Your task to perform on an android device: delete location history Image 0: 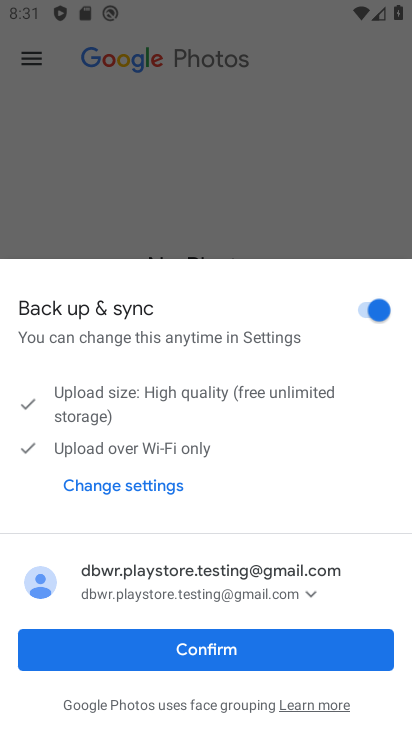
Step 0: press home button
Your task to perform on an android device: delete location history Image 1: 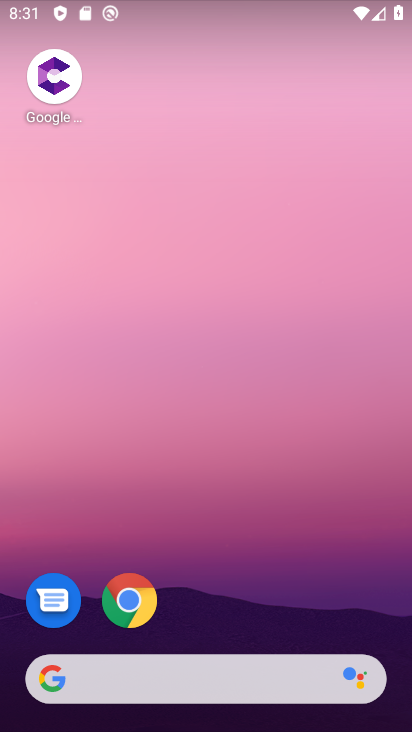
Step 1: drag from (223, 661) to (232, 1)
Your task to perform on an android device: delete location history Image 2: 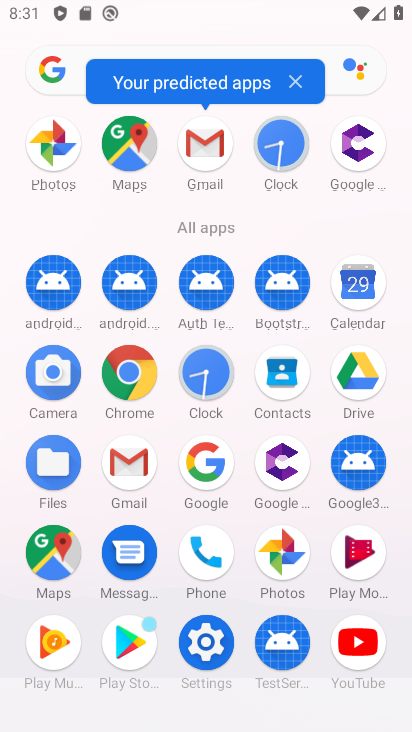
Step 2: click (54, 556)
Your task to perform on an android device: delete location history Image 3: 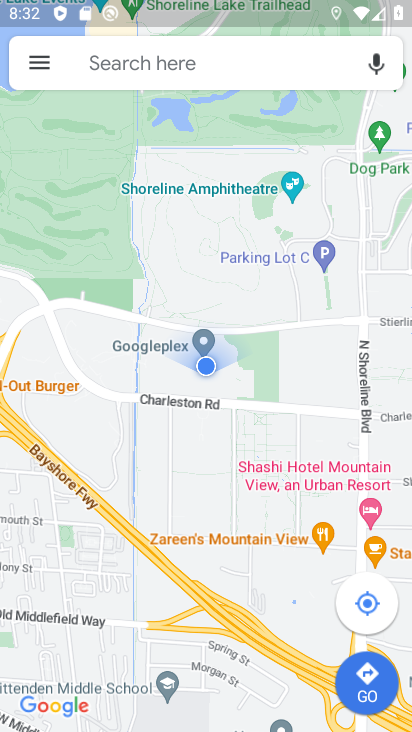
Step 3: click (33, 64)
Your task to perform on an android device: delete location history Image 4: 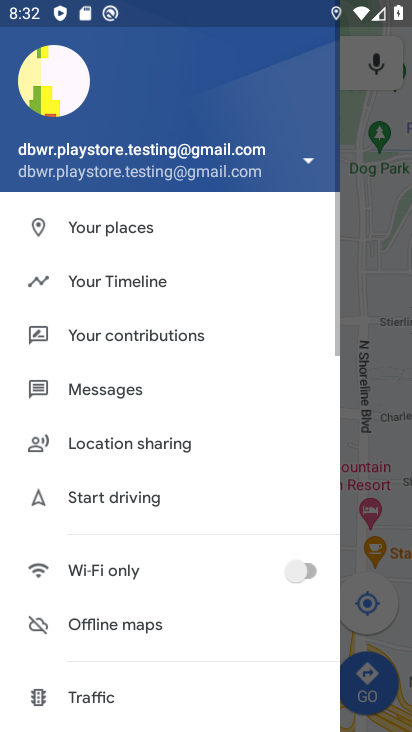
Step 4: click (139, 281)
Your task to perform on an android device: delete location history Image 5: 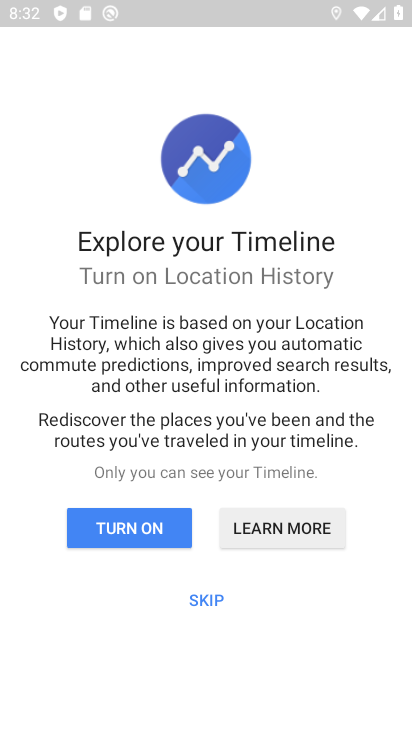
Step 5: click (200, 598)
Your task to perform on an android device: delete location history Image 6: 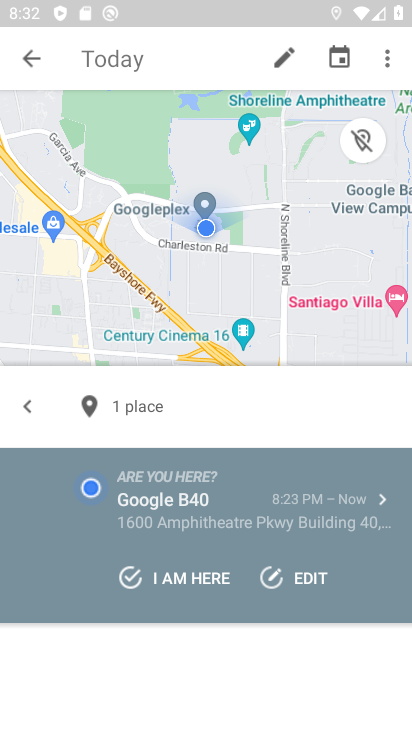
Step 6: click (387, 60)
Your task to perform on an android device: delete location history Image 7: 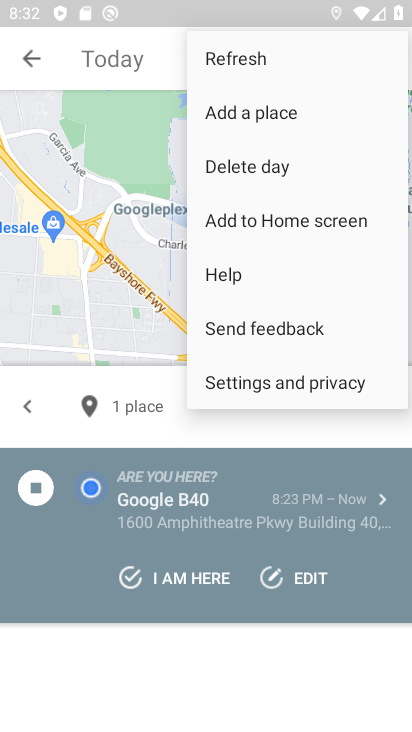
Step 7: click (268, 384)
Your task to perform on an android device: delete location history Image 8: 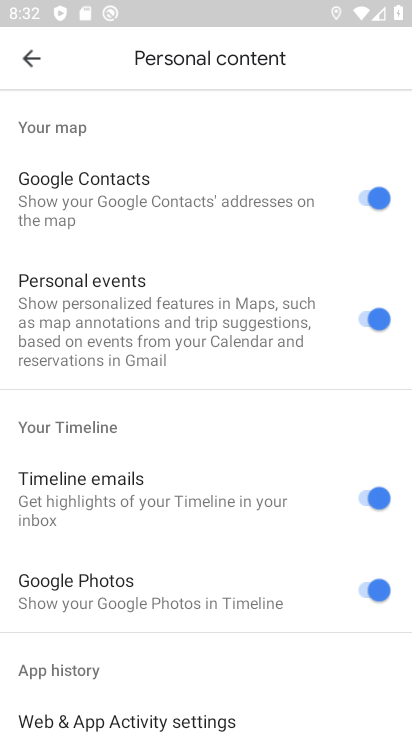
Step 8: drag from (177, 690) to (194, 143)
Your task to perform on an android device: delete location history Image 9: 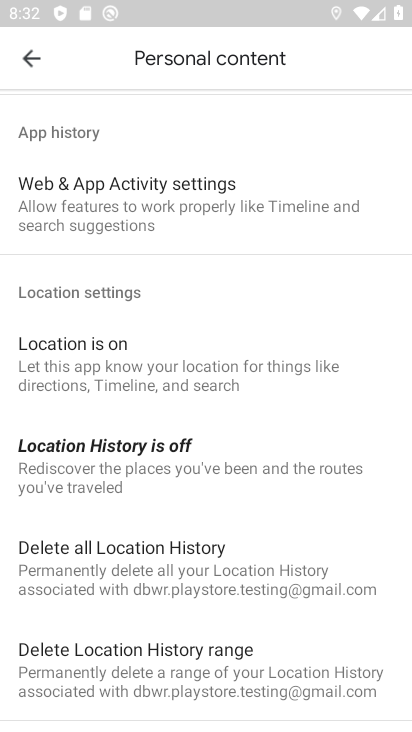
Step 9: click (114, 551)
Your task to perform on an android device: delete location history Image 10: 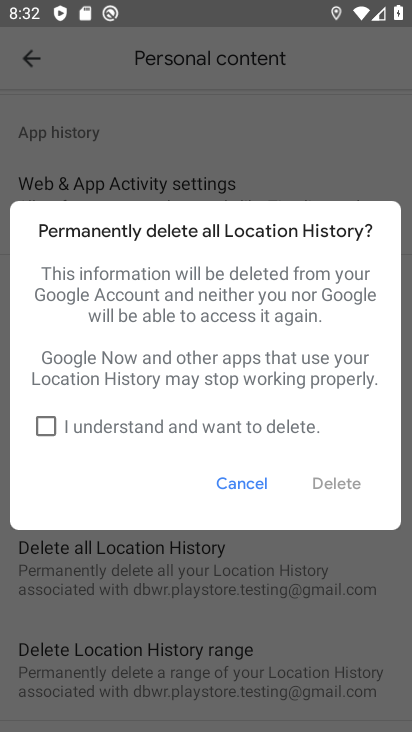
Step 10: click (55, 428)
Your task to perform on an android device: delete location history Image 11: 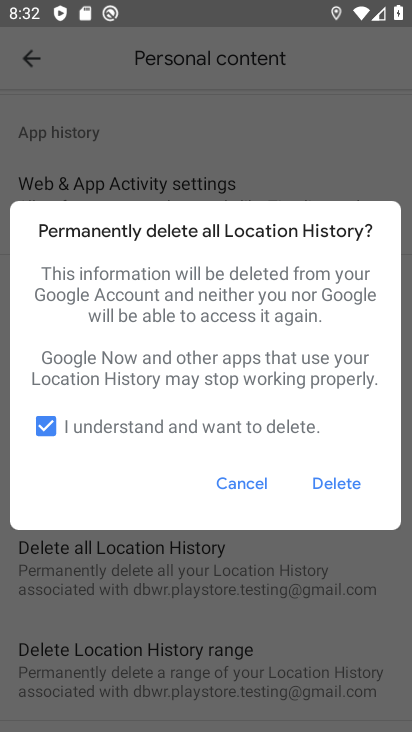
Step 11: click (325, 483)
Your task to perform on an android device: delete location history Image 12: 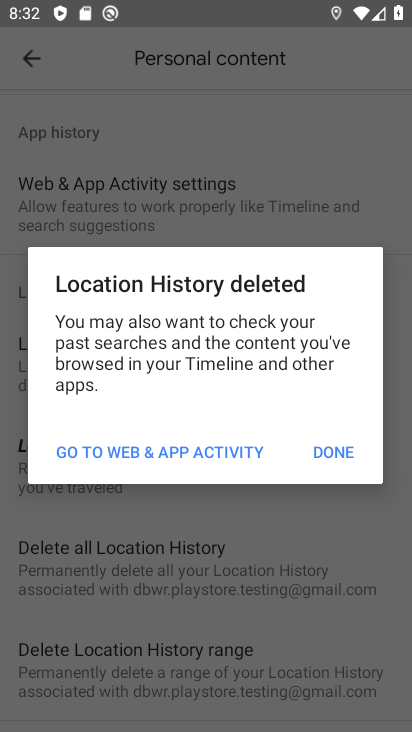
Step 12: click (338, 445)
Your task to perform on an android device: delete location history Image 13: 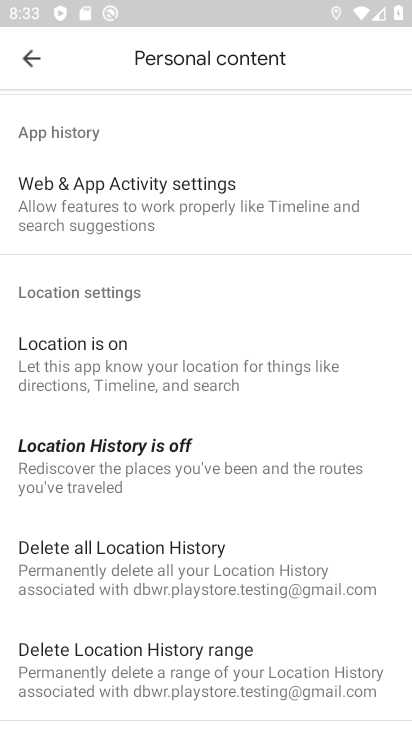
Step 13: task complete